Your task to perform on an android device: Go to notification settings Image 0: 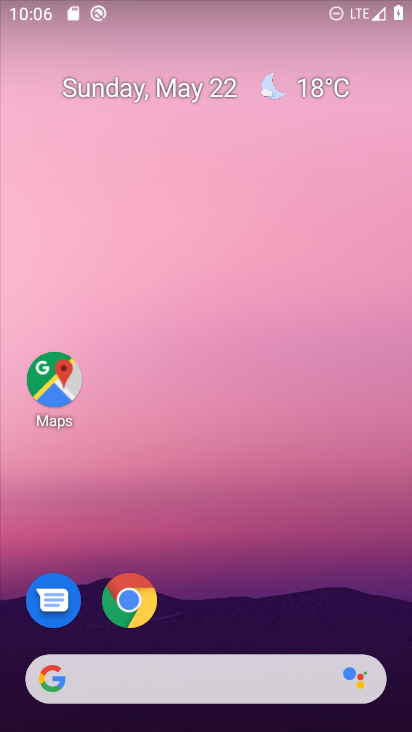
Step 0: drag from (386, 616) to (289, 86)
Your task to perform on an android device: Go to notification settings Image 1: 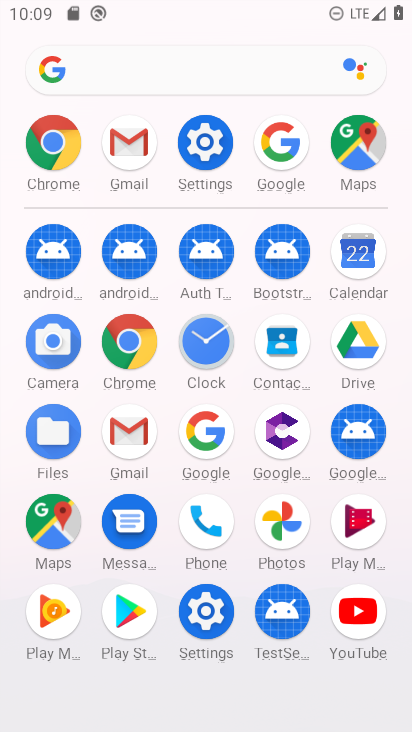
Step 1: click (218, 626)
Your task to perform on an android device: Go to notification settings Image 2: 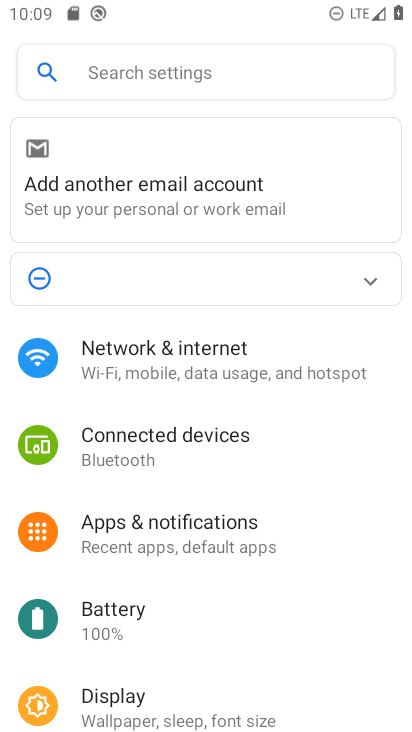
Step 2: click (190, 515)
Your task to perform on an android device: Go to notification settings Image 3: 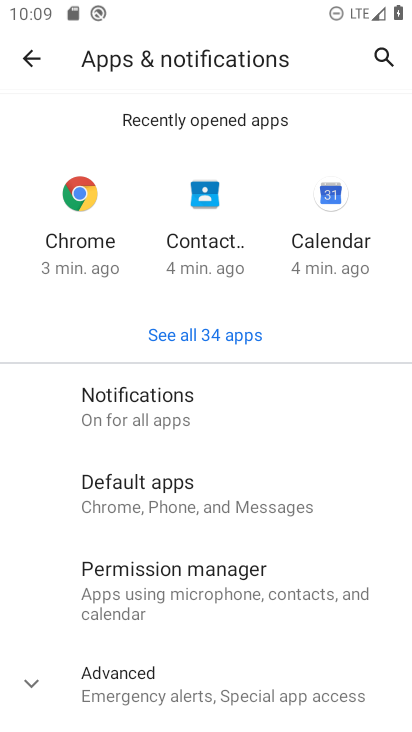
Step 3: click (164, 436)
Your task to perform on an android device: Go to notification settings Image 4: 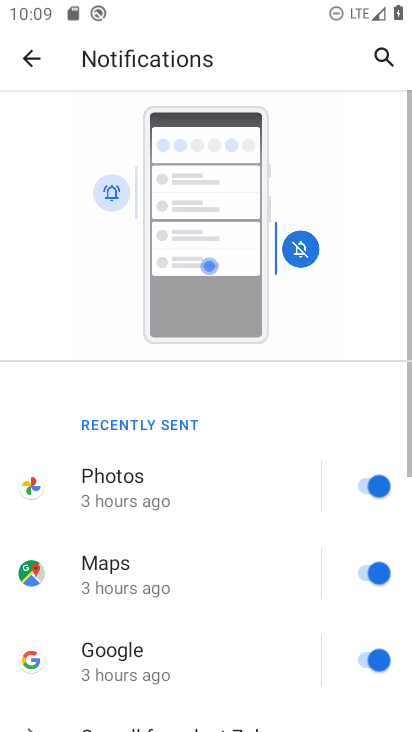
Step 4: task complete